Your task to perform on an android device: turn off airplane mode Image 0: 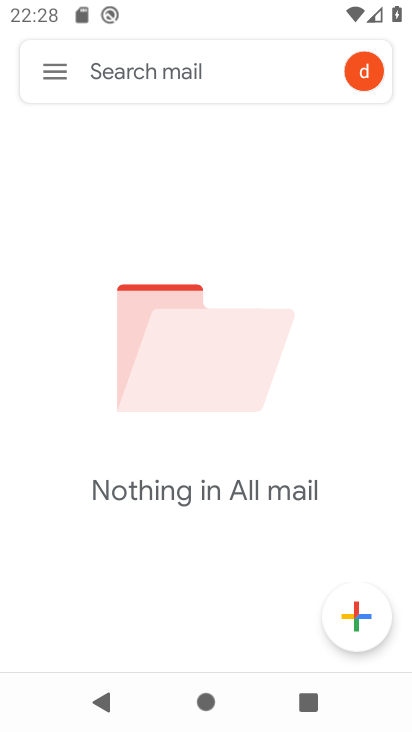
Step 0: press home button
Your task to perform on an android device: turn off airplane mode Image 1: 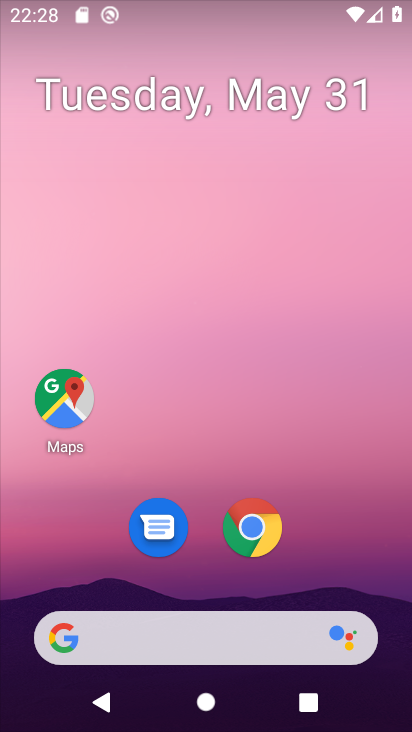
Step 1: drag from (332, 390) to (185, 23)
Your task to perform on an android device: turn off airplane mode Image 2: 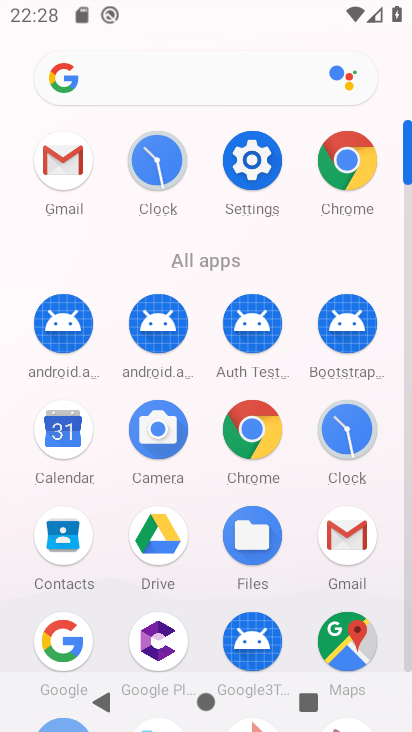
Step 2: click (257, 156)
Your task to perform on an android device: turn off airplane mode Image 3: 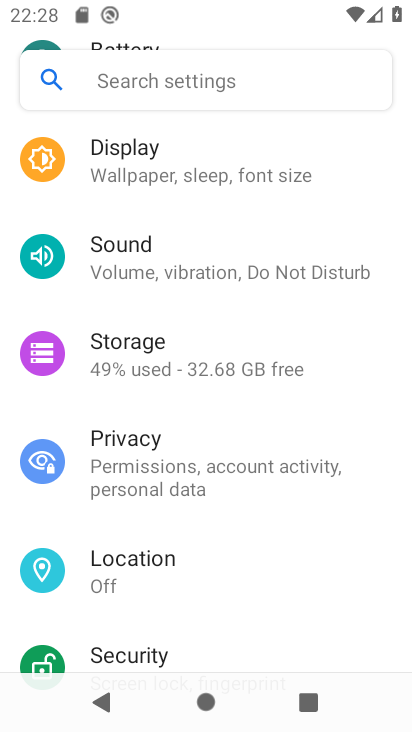
Step 3: drag from (186, 217) to (243, 610)
Your task to perform on an android device: turn off airplane mode Image 4: 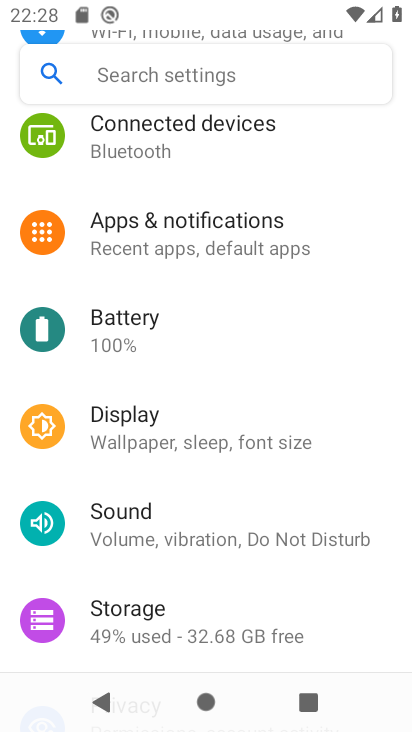
Step 4: drag from (182, 213) to (197, 622)
Your task to perform on an android device: turn off airplane mode Image 5: 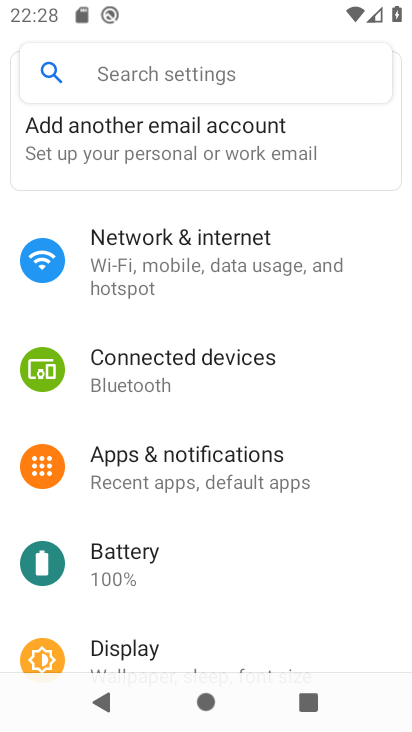
Step 5: click (186, 251)
Your task to perform on an android device: turn off airplane mode Image 6: 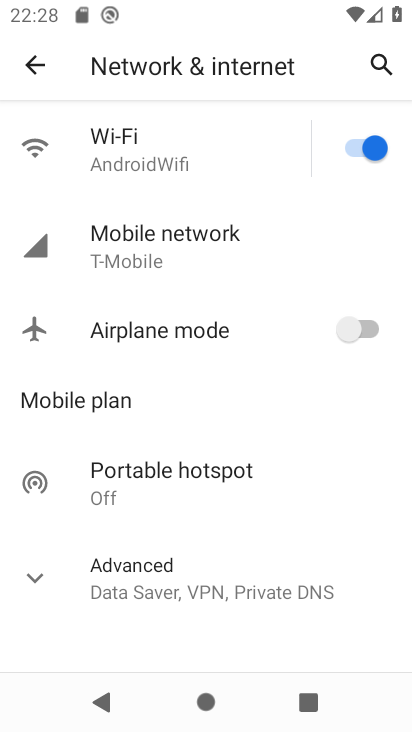
Step 6: task complete